Your task to perform on an android device: see tabs open on other devices in the chrome app Image 0: 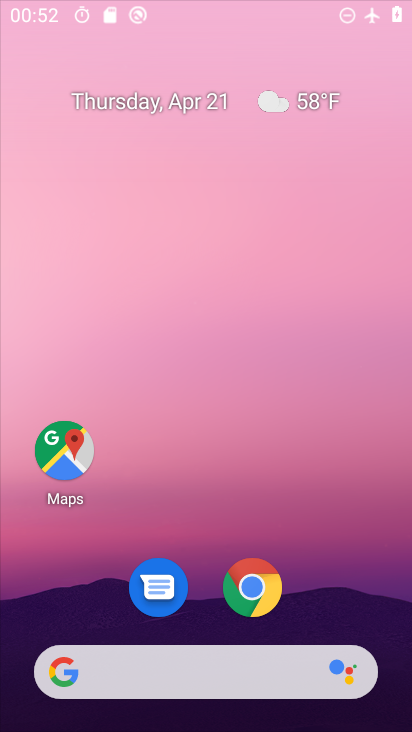
Step 0: click (254, 590)
Your task to perform on an android device: see tabs open on other devices in the chrome app Image 1: 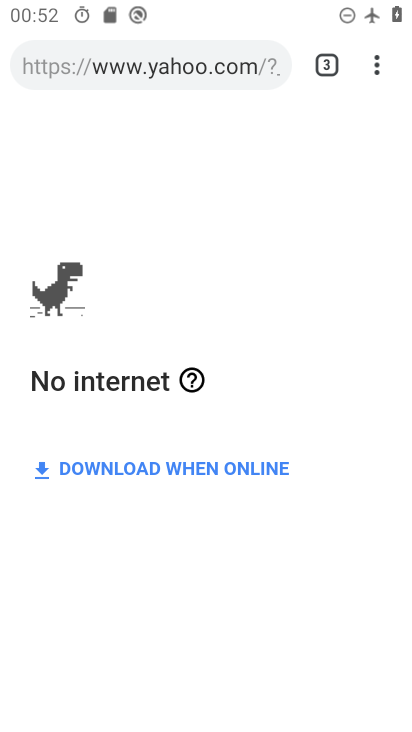
Step 1: click (370, 63)
Your task to perform on an android device: see tabs open on other devices in the chrome app Image 2: 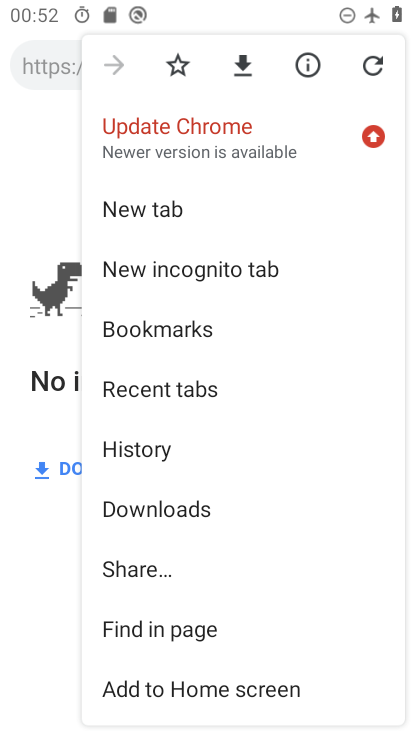
Step 2: click (146, 382)
Your task to perform on an android device: see tabs open on other devices in the chrome app Image 3: 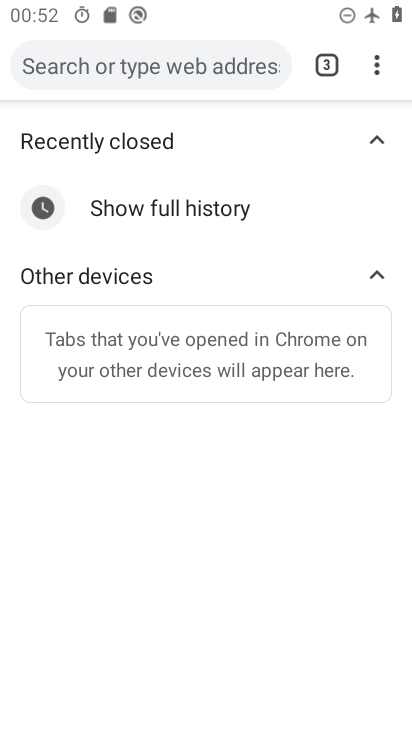
Step 3: task complete